Your task to perform on an android device: turn on data saver in the chrome app Image 0: 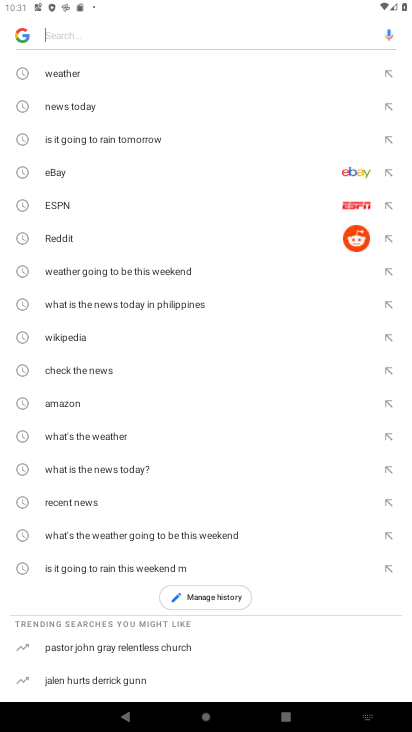
Step 0: press back button
Your task to perform on an android device: turn on data saver in the chrome app Image 1: 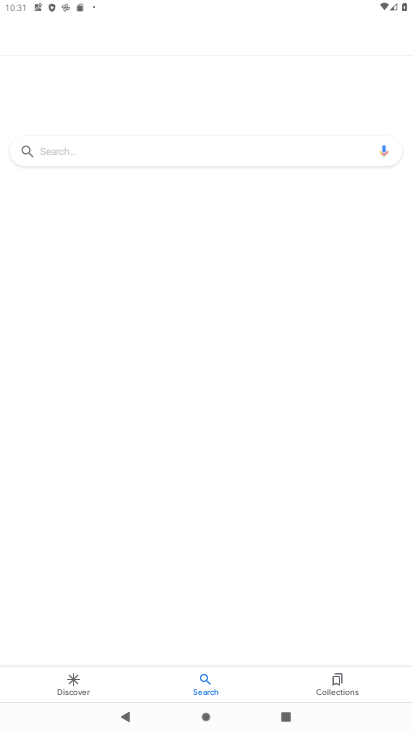
Step 1: press back button
Your task to perform on an android device: turn on data saver in the chrome app Image 2: 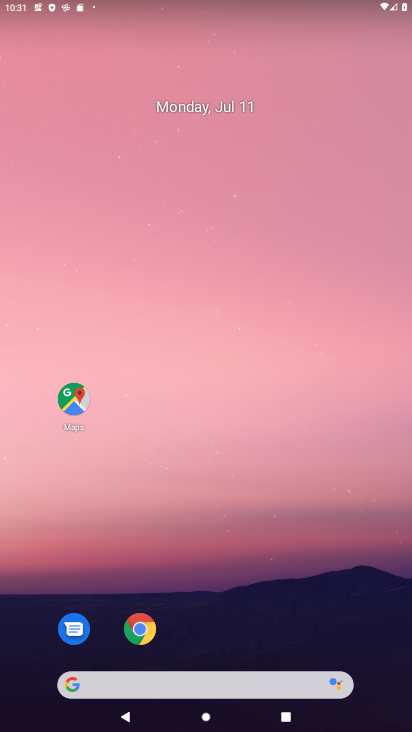
Step 2: click (144, 634)
Your task to perform on an android device: turn on data saver in the chrome app Image 3: 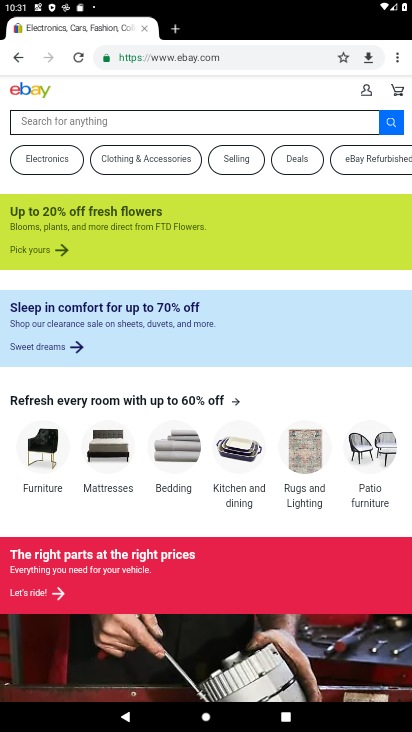
Step 3: click (406, 55)
Your task to perform on an android device: turn on data saver in the chrome app Image 4: 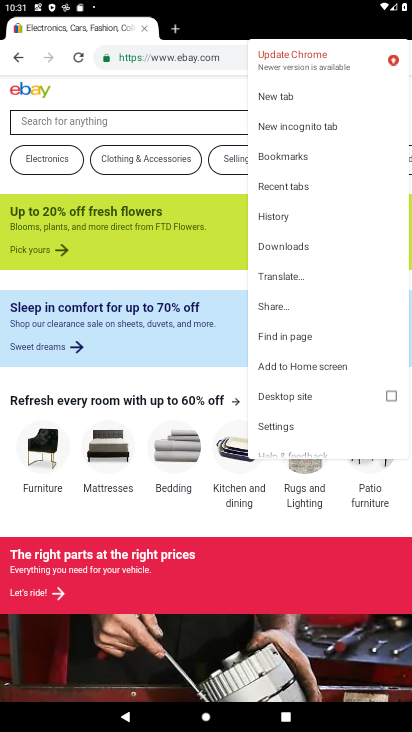
Step 4: click (282, 428)
Your task to perform on an android device: turn on data saver in the chrome app Image 5: 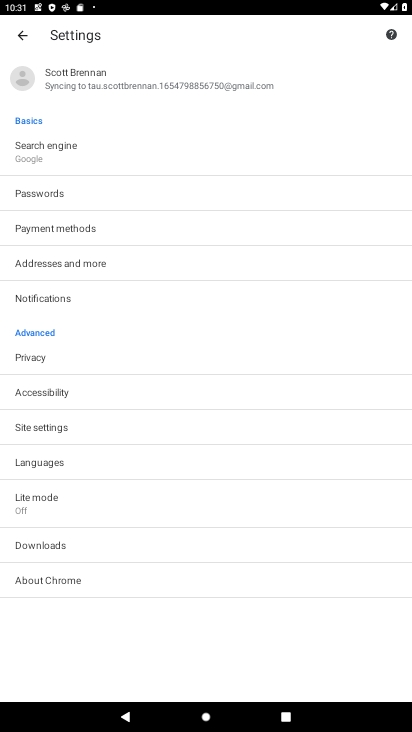
Step 5: click (108, 499)
Your task to perform on an android device: turn on data saver in the chrome app Image 6: 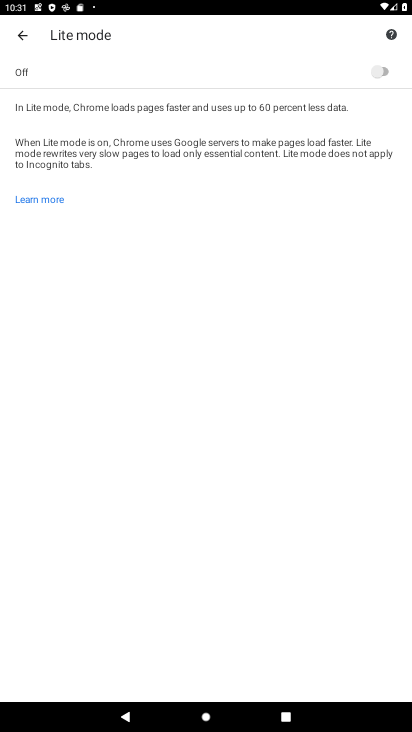
Step 6: click (368, 80)
Your task to perform on an android device: turn on data saver in the chrome app Image 7: 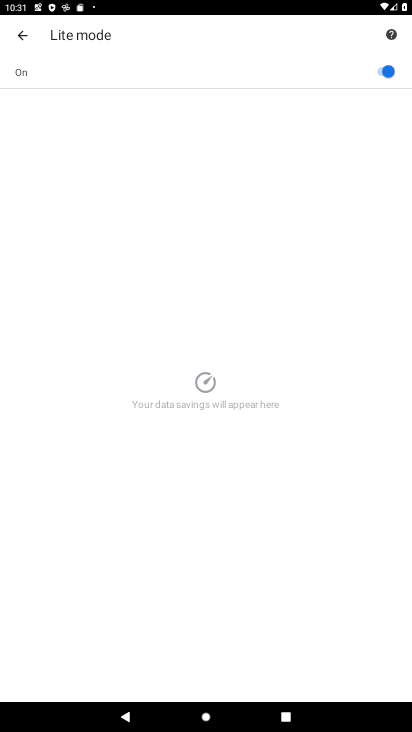
Step 7: task complete